Your task to perform on an android device: change the clock display to analog Image 0: 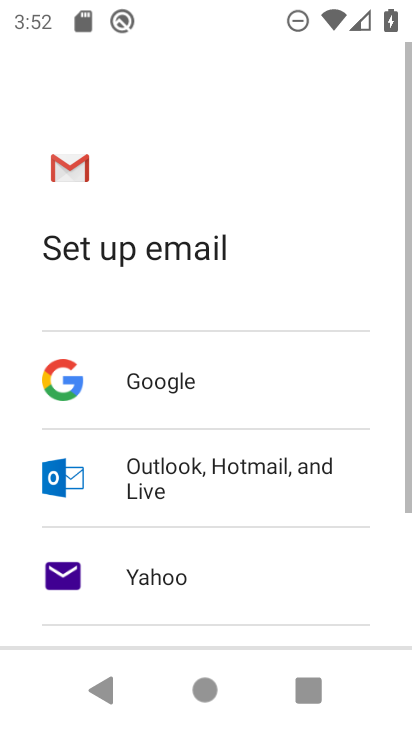
Step 0: press home button
Your task to perform on an android device: change the clock display to analog Image 1: 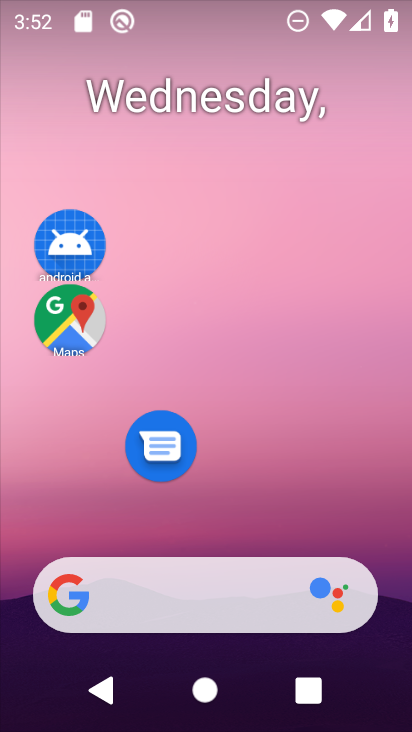
Step 1: drag from (253, 501) to (348, 138)
Your task to perform on an android device: change the clock display to analog Image 2: 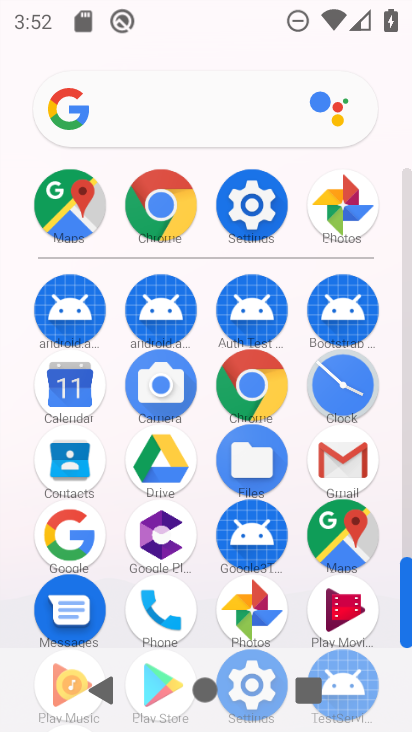
Step 2: click (352, 394)
Your task to perform on an android device: change the clock display to analog Image 3: 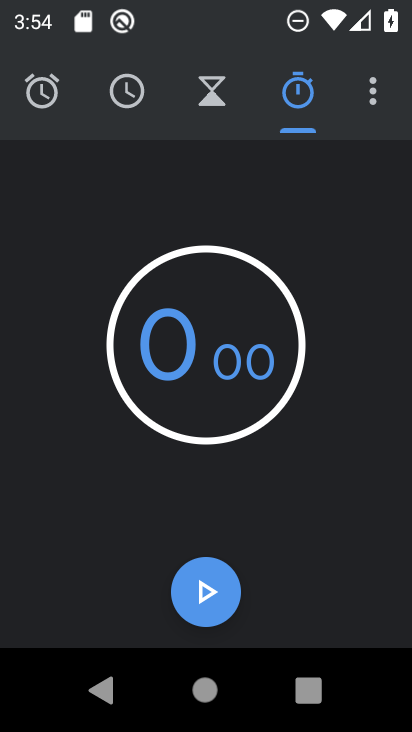
Step 3: click (372, 76)
Your task to perform on an android device: change the clock display to analog Image 4: 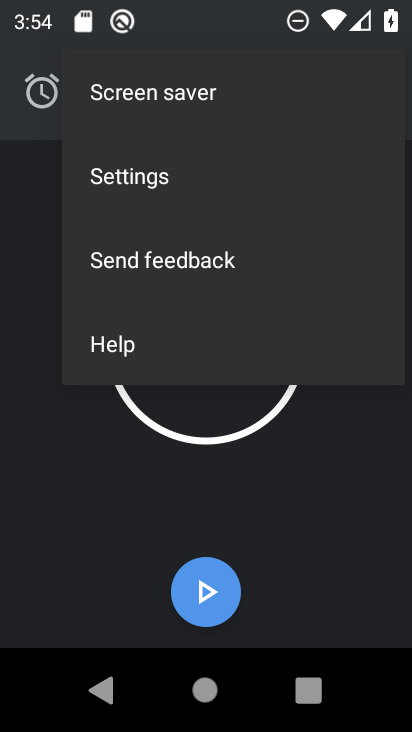
Step 4: click (351, 152)
Your task to perform on an android device: change the clock display to analog Image 5: 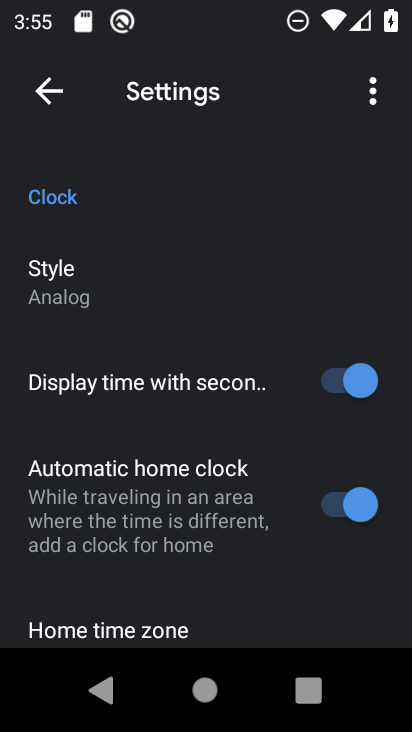
Step 5: task complete